Your task to perform on an android device: turn off wifi Image 0: 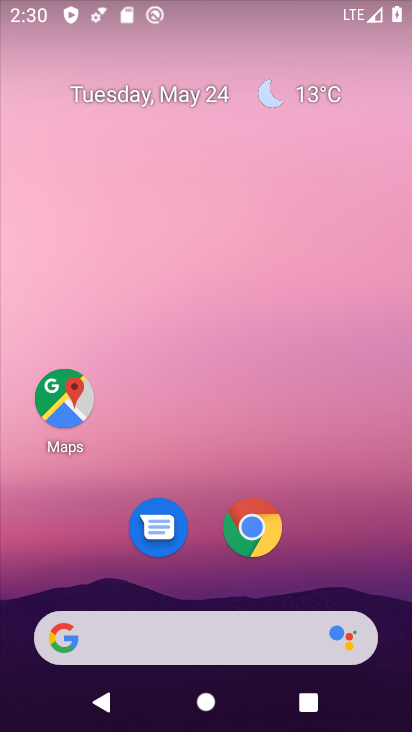
Step 0: drag from (312, 578) to (321, 50)
Your task to perform on an android device: turn off wifi Image 1: 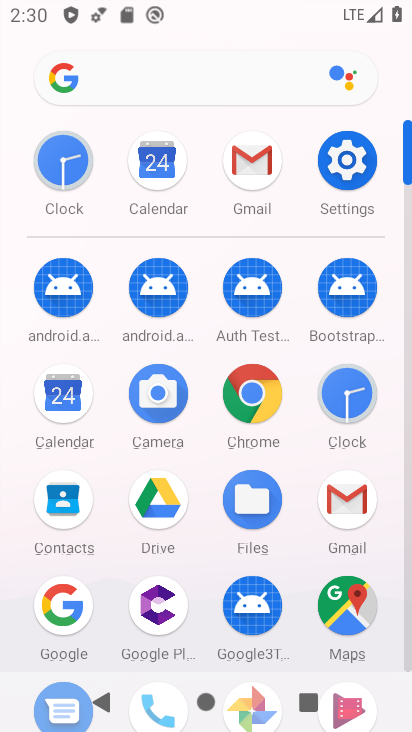
Step 1: click (352, 164)
Your task to perform on an android device: turn off wifi Image 2: 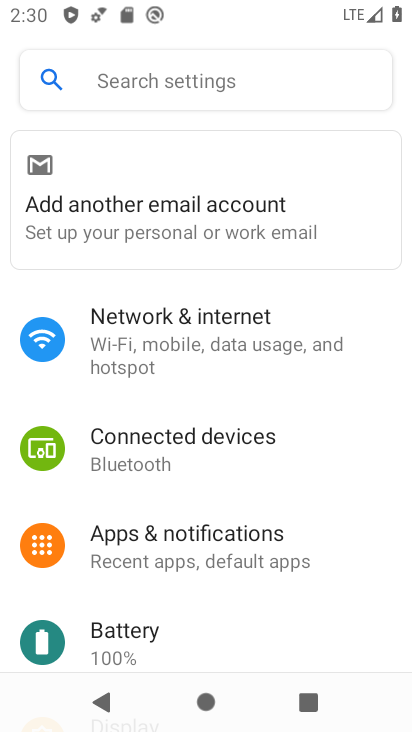
Step 2: click (211, 345)
Your task to perform on an android device: turn off wifi Image 3: 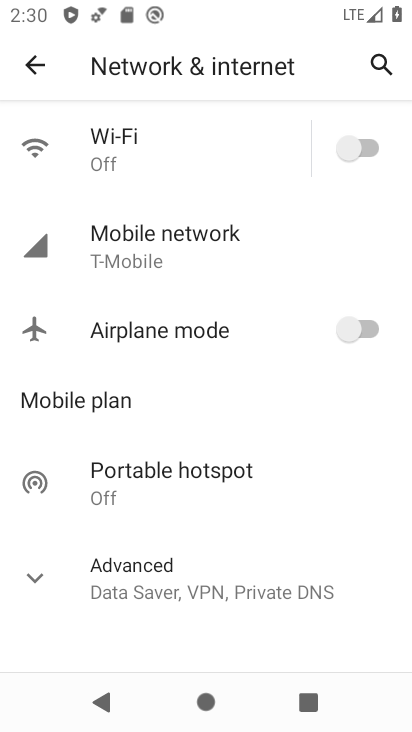
Step 3: task complete